Your task to perform on an android device: Add "usb-b" to the cart on ebay Image 0: 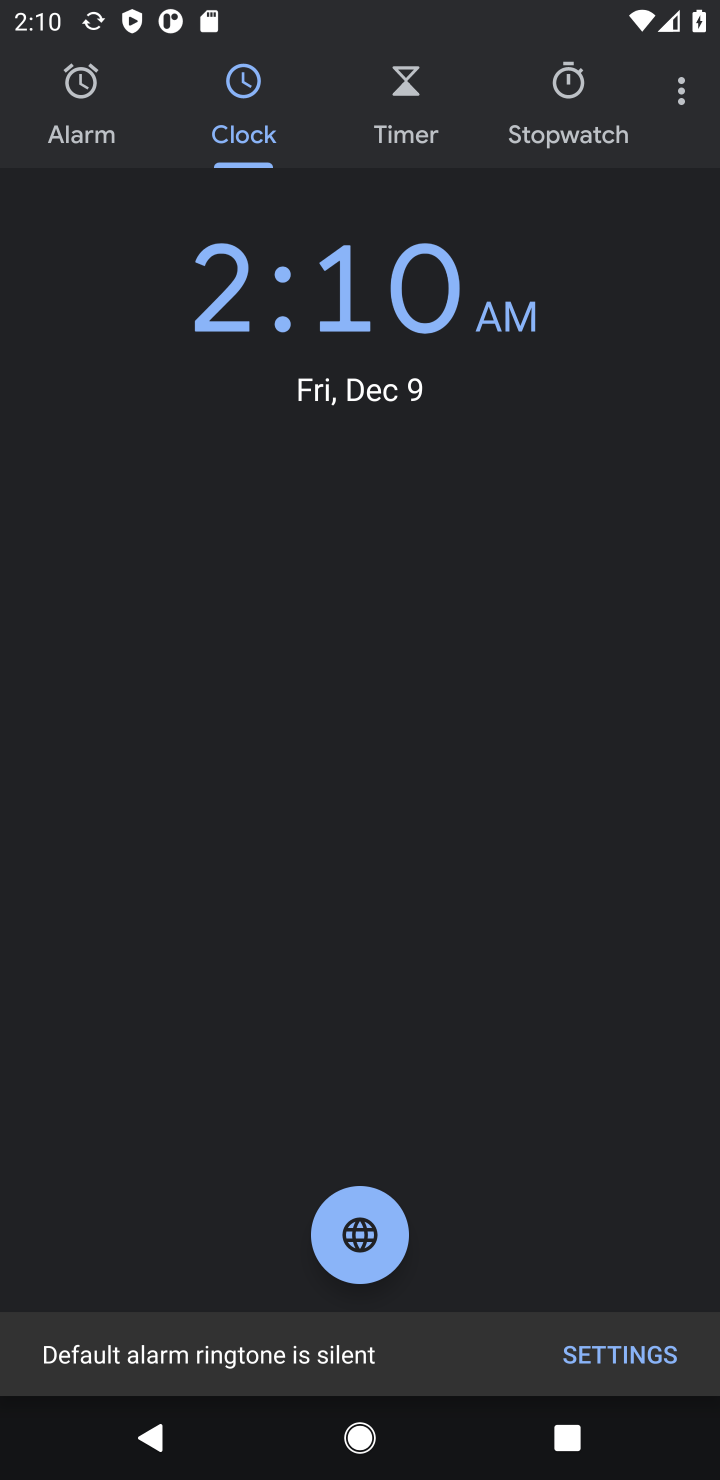
Step 0: press home button
Your task to perform on an android device: Add "usb-b" to the cart on ebay Image 1: 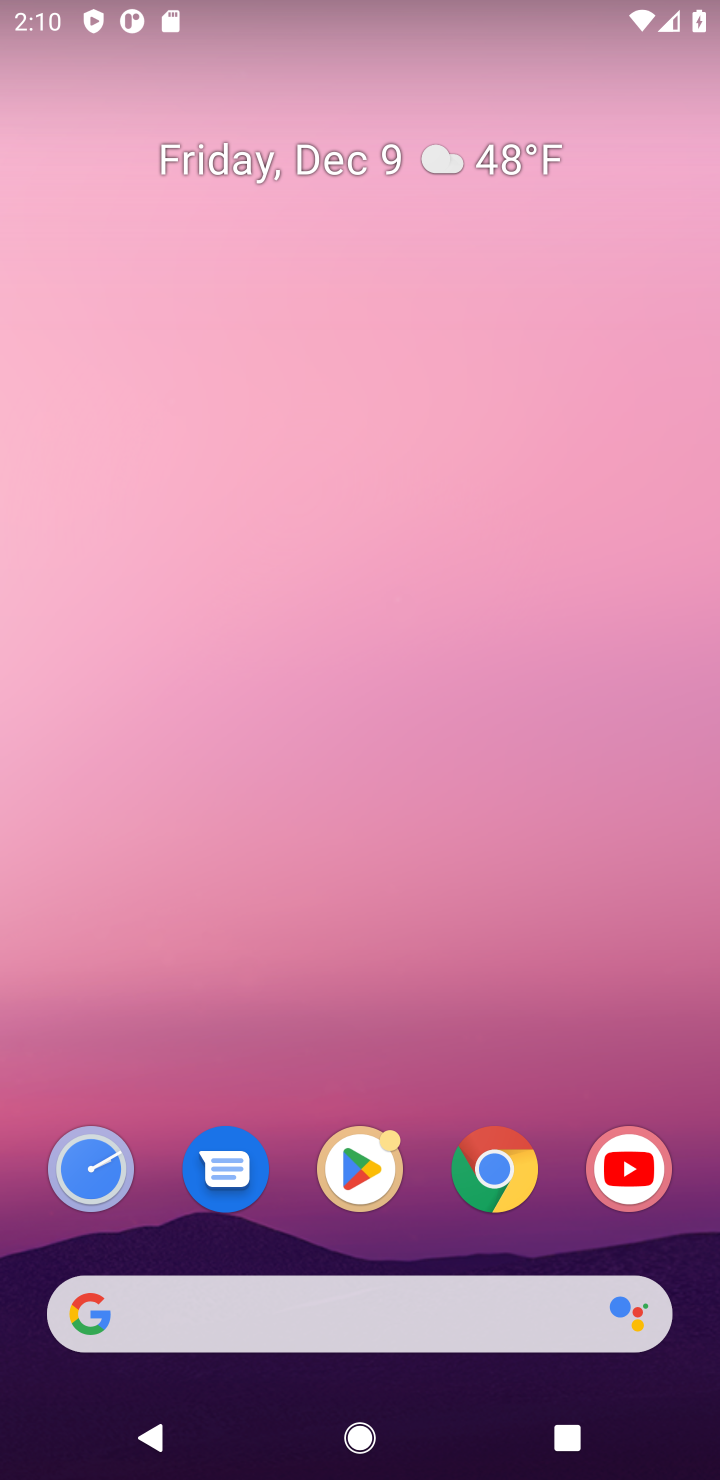
Step 1: click (501, 1157)
Your task to perform on an android device: Add "usb-b" to the cart on ebay Image 2: 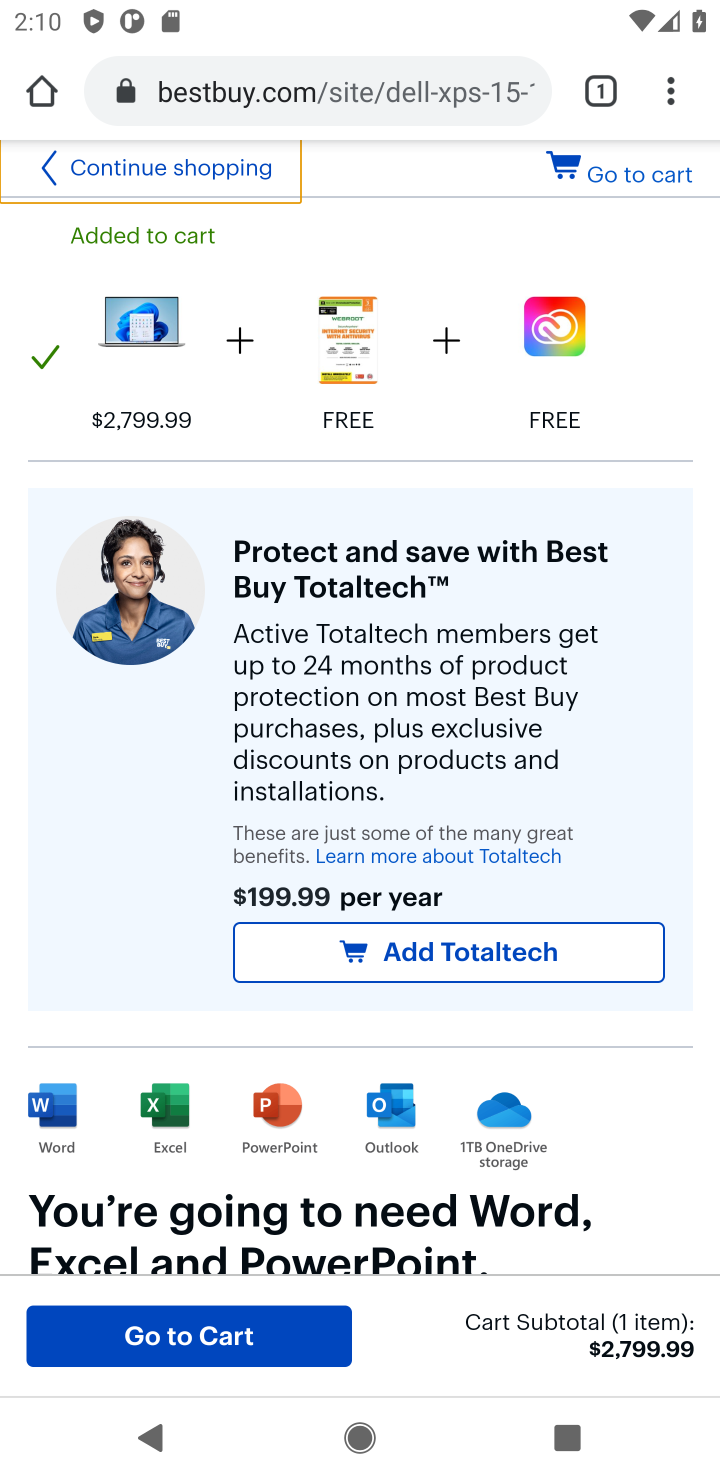
Step 2: click (366, 84)
Your task to perform on an android device: Add "usb-b" to the cart on ebay Image 3: 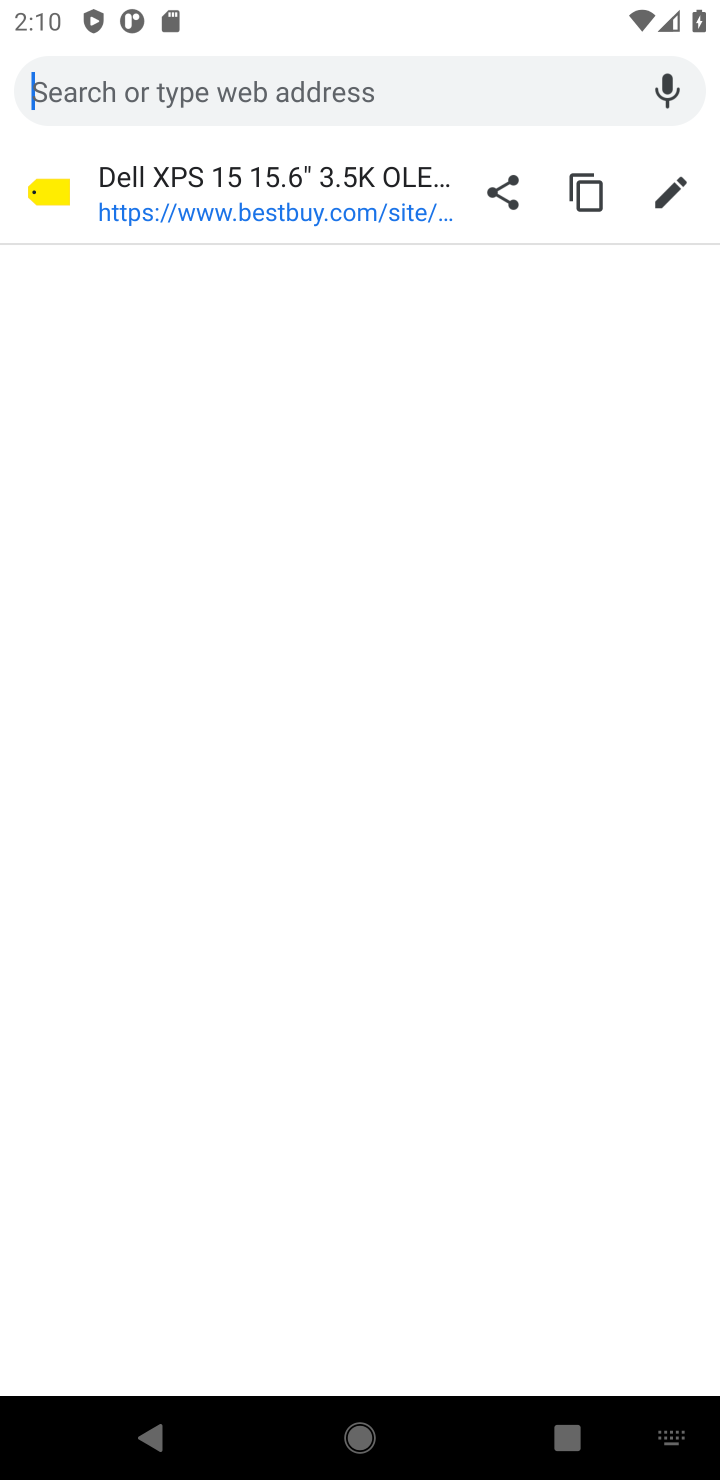
Step 3: press enter
Your task to perform on an android device: Add "usb-b" to the cart on ebay Image 4: 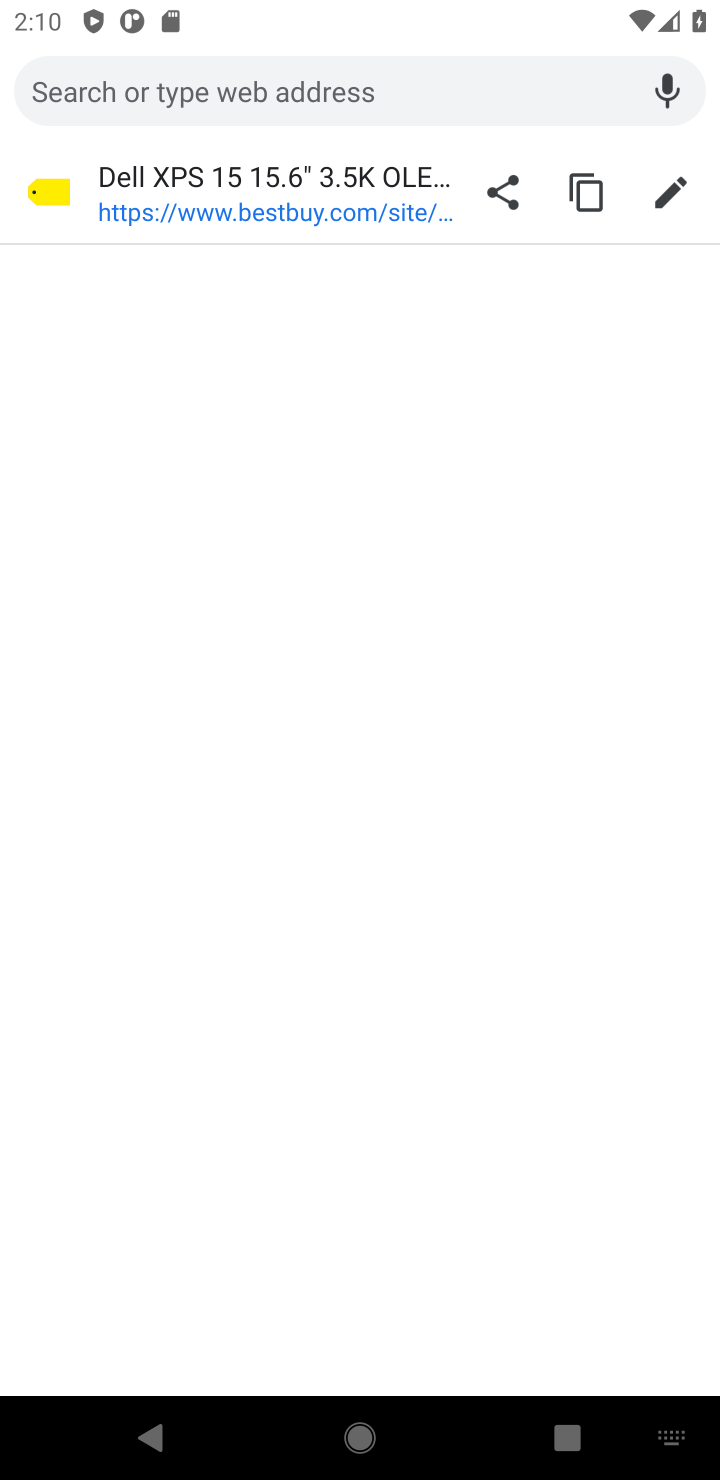
Step 4: type "ebay"
Your task to perform on an android device: Add "usb-b" to the cart on ebay Image 5: 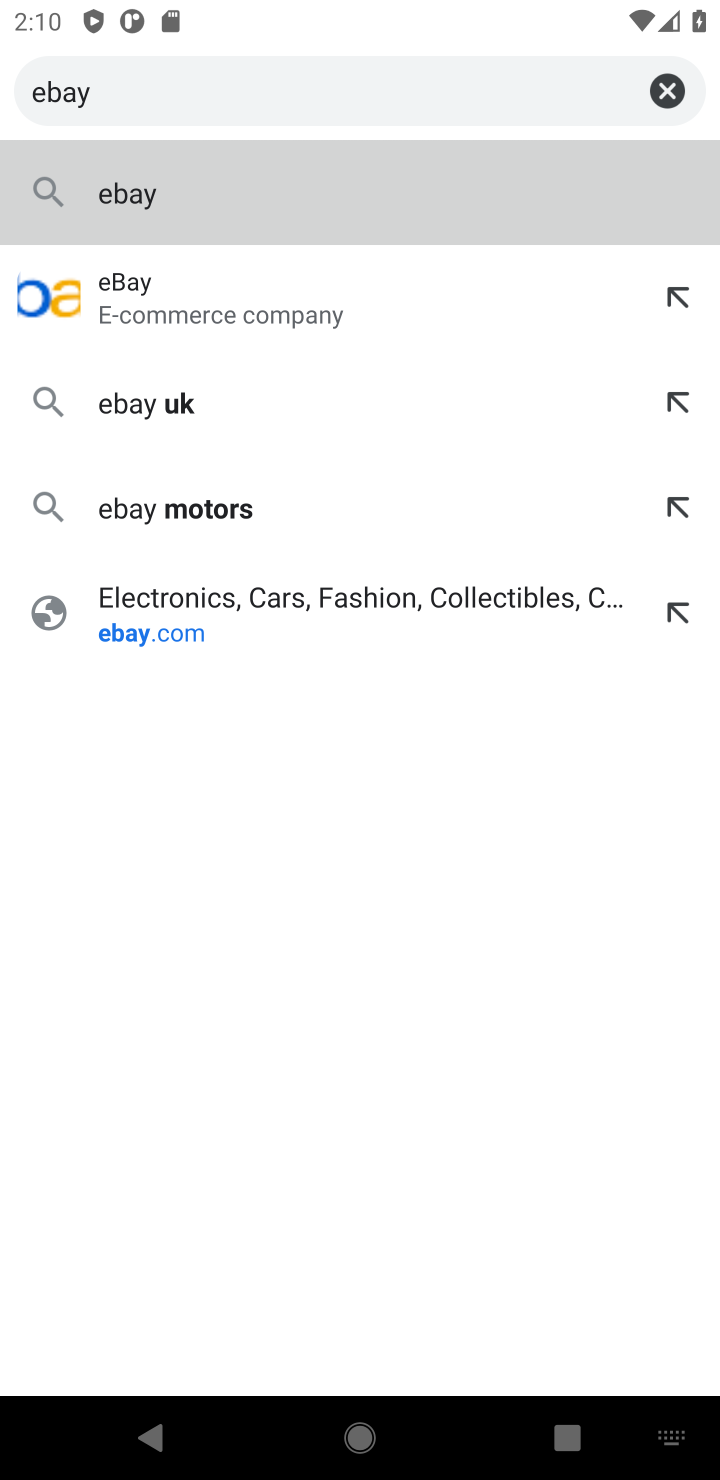
Step 5: click (262, 189)
Your task to perform on an android device: Add "usb-b" to the cart on ebay Image 6: 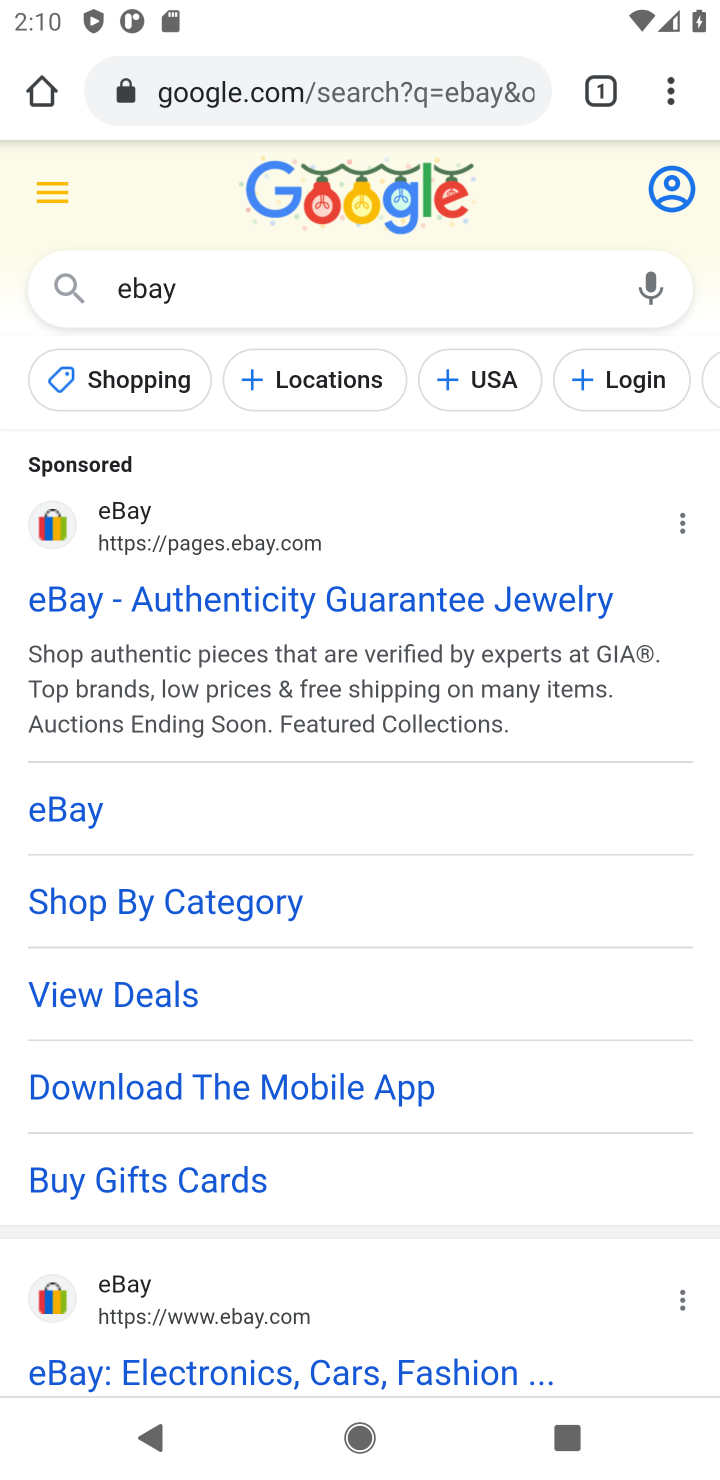
Step 6: click (209, 547)
Your task to perform on an android device: Add "usb-b" to the cart on ebay Image 7: 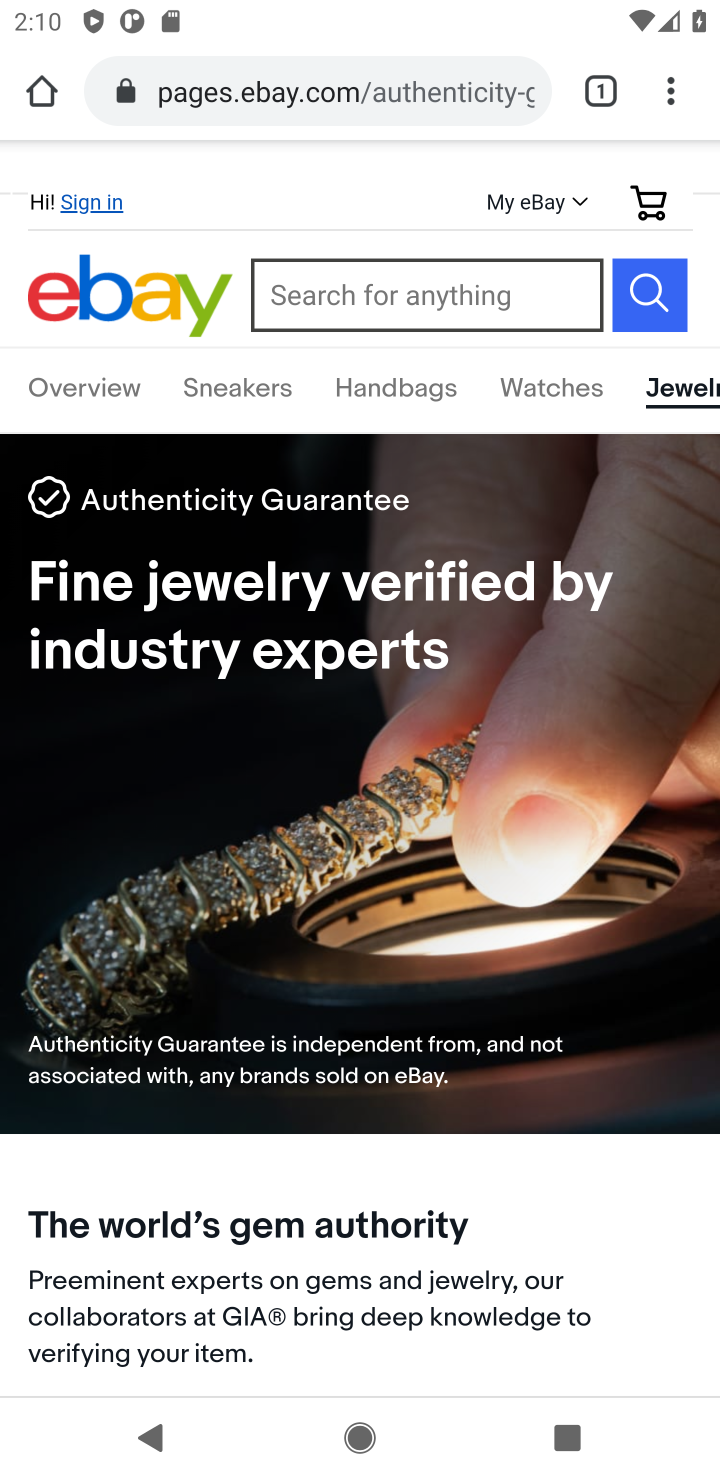
Step 7: click (517, 302)
Your task to perform on an android device: Add "usb-b" to the cart on ebay Image 8: 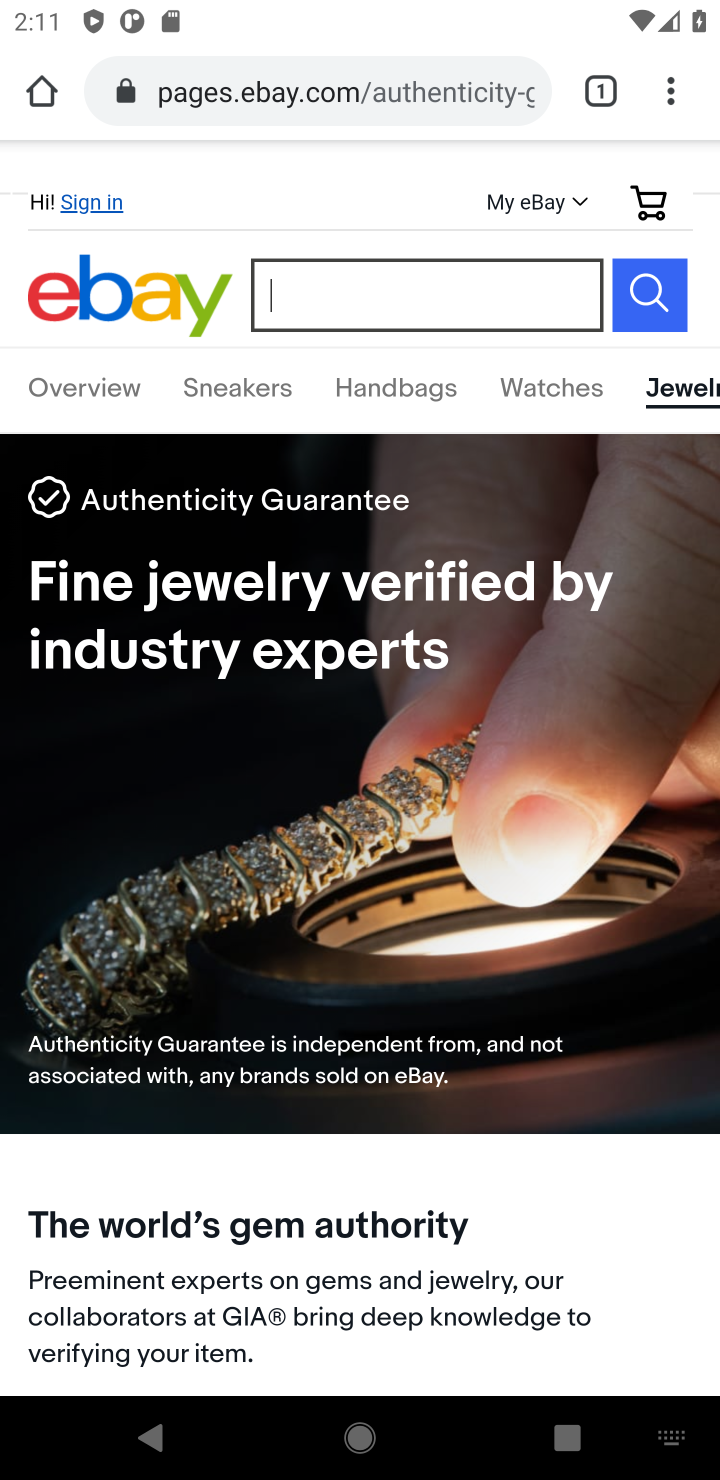
Step 8: press enter
Your task to perform on an android device: Add "usb-b" to the cart on ebay Image 9: 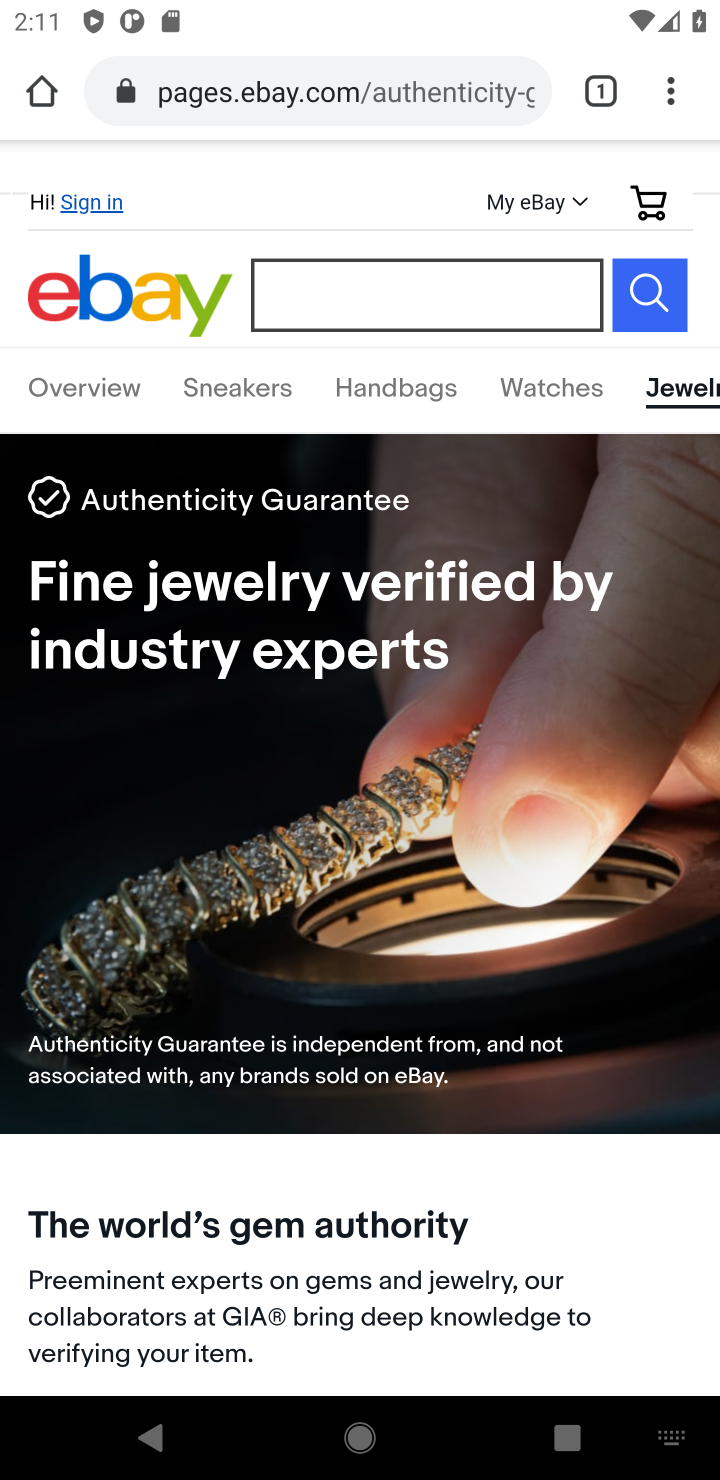
Step 9: type "usb-b"
Your task to perform on an android device: Add "usb-b" to the cart on ebay Image 10: 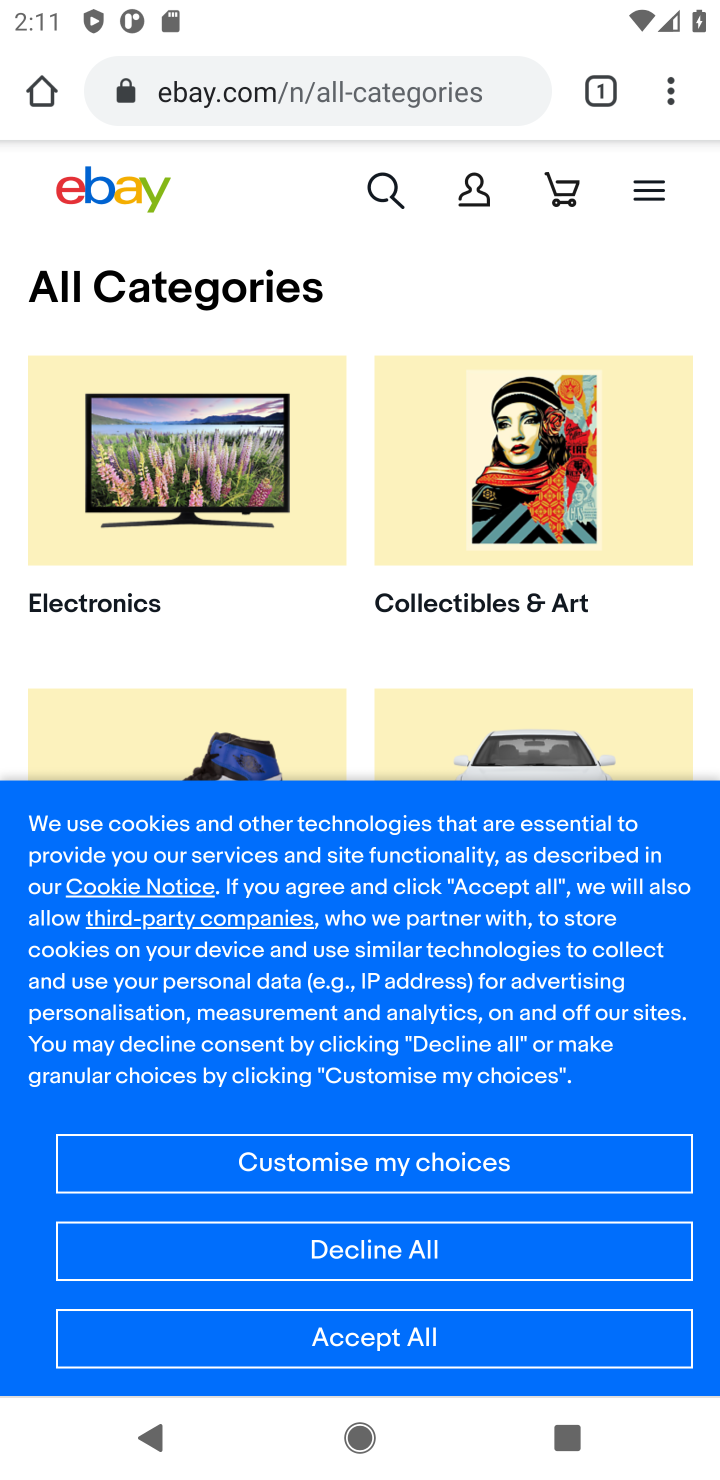
Step 10: click (411, 1330)
Your task to perform on an android device: Add "usb-b" to the cart on ebay Image 11: 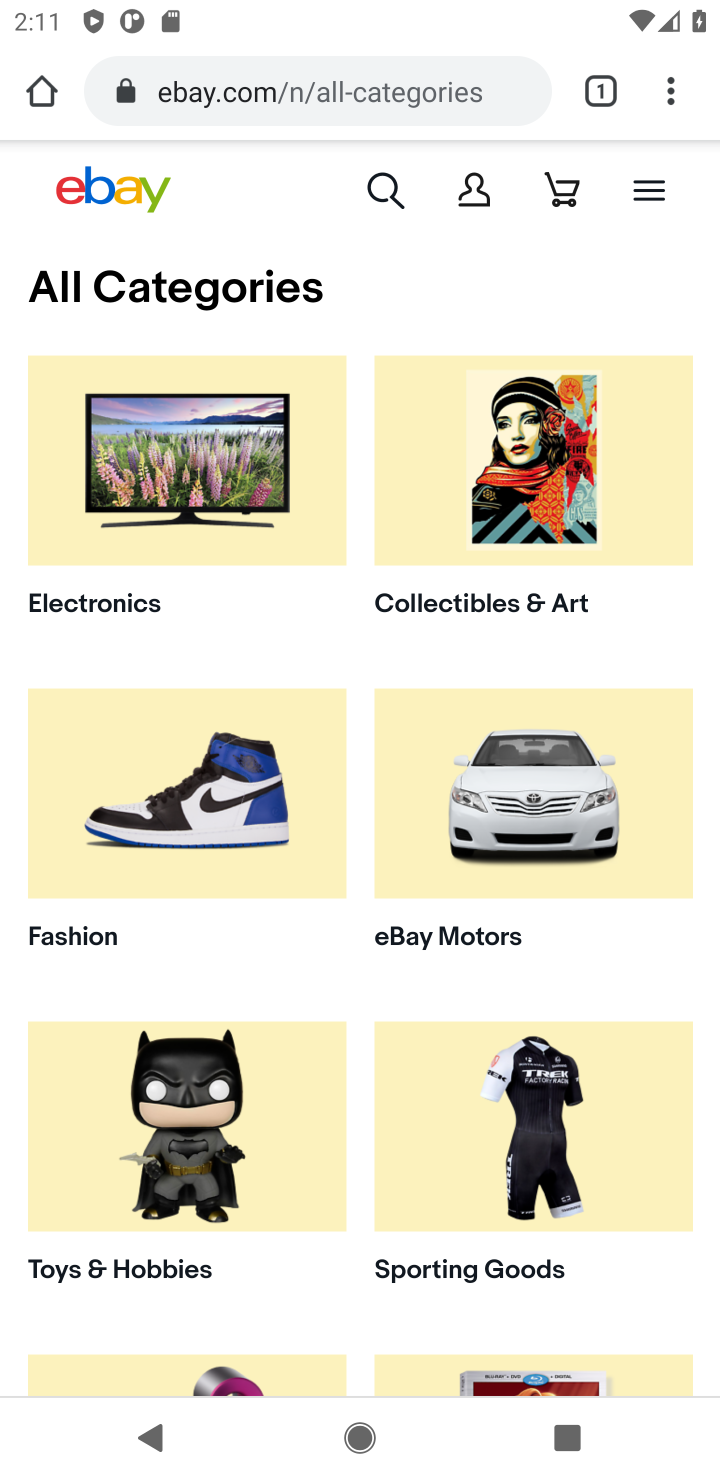
Step 11: click (380, 186)
Your task to perform on an android device: Add "usb-b" to the cart on ebay Image 12: 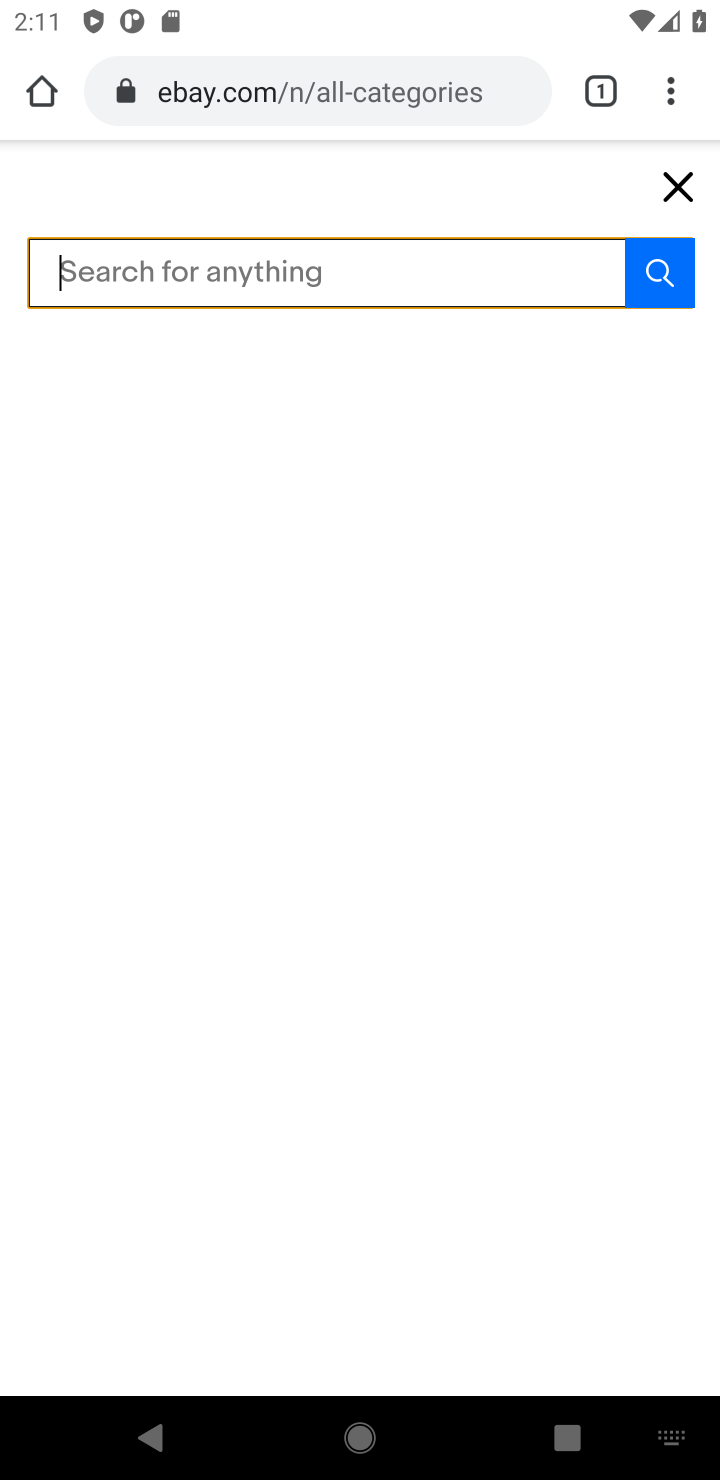
Step 12: press enter
Your task to perform on an android device: Add "usb-b" to the cart on ebay Image 13: 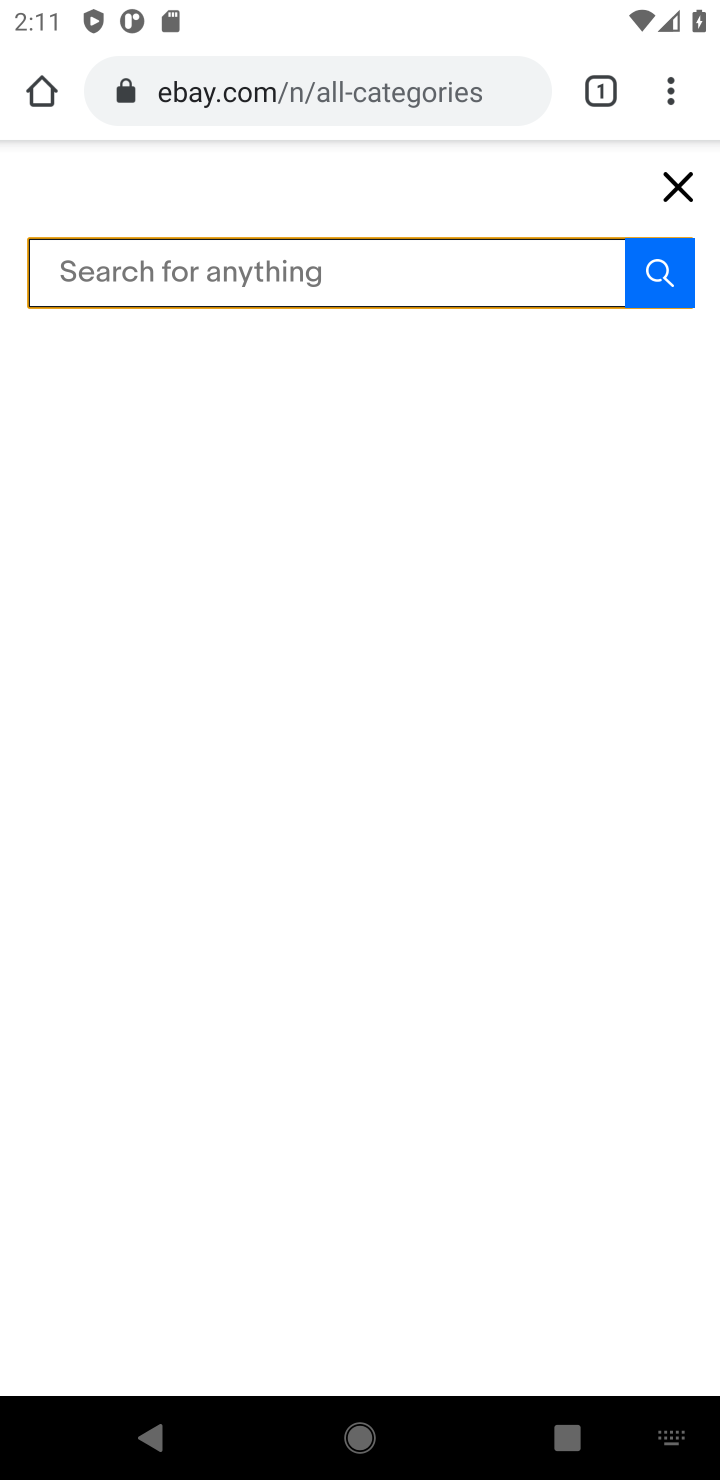
Step 13: type "usb-b"
Your task to perform on an android device: Add "usb-b" to the cart on ebay Image 14: 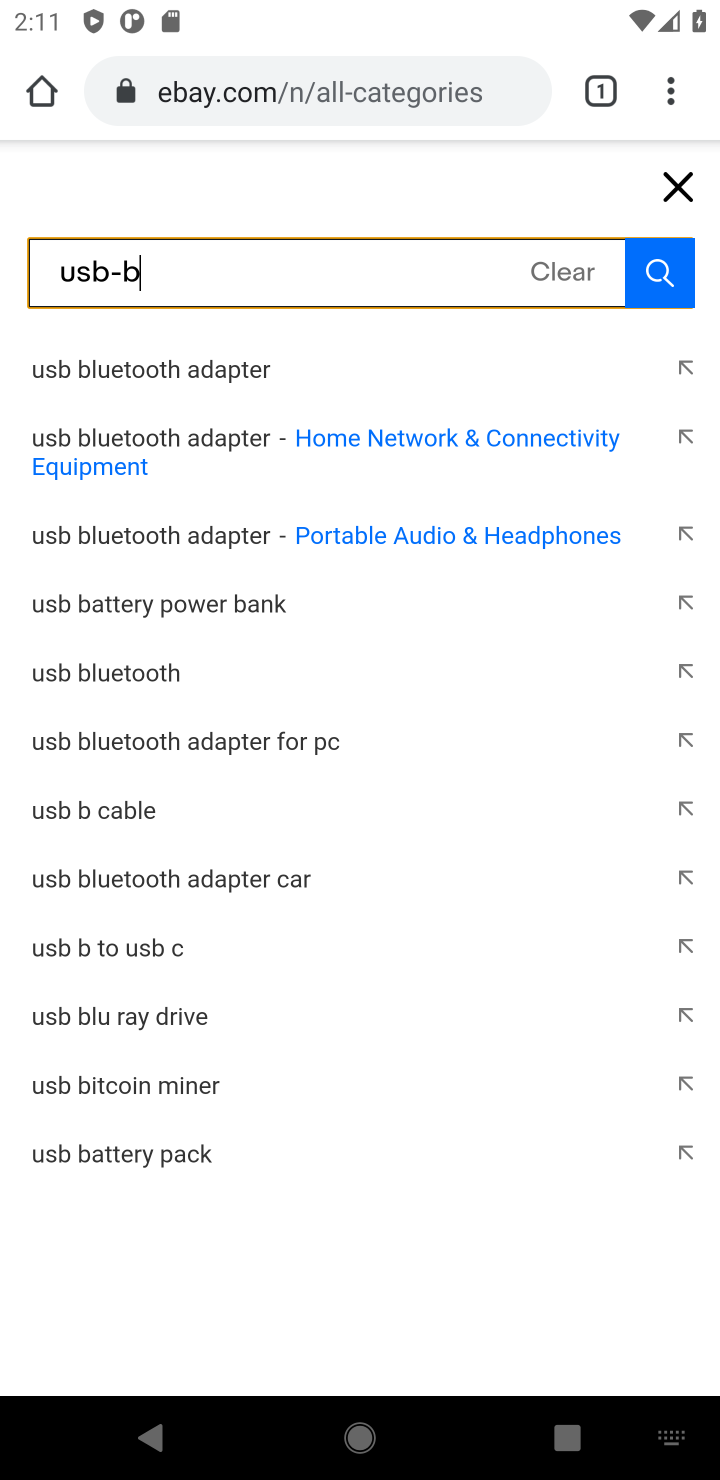
Step 14: click (652, 271)
Your task to perform on an android device: Add "usb-b" to the cart on ebay Image 15: 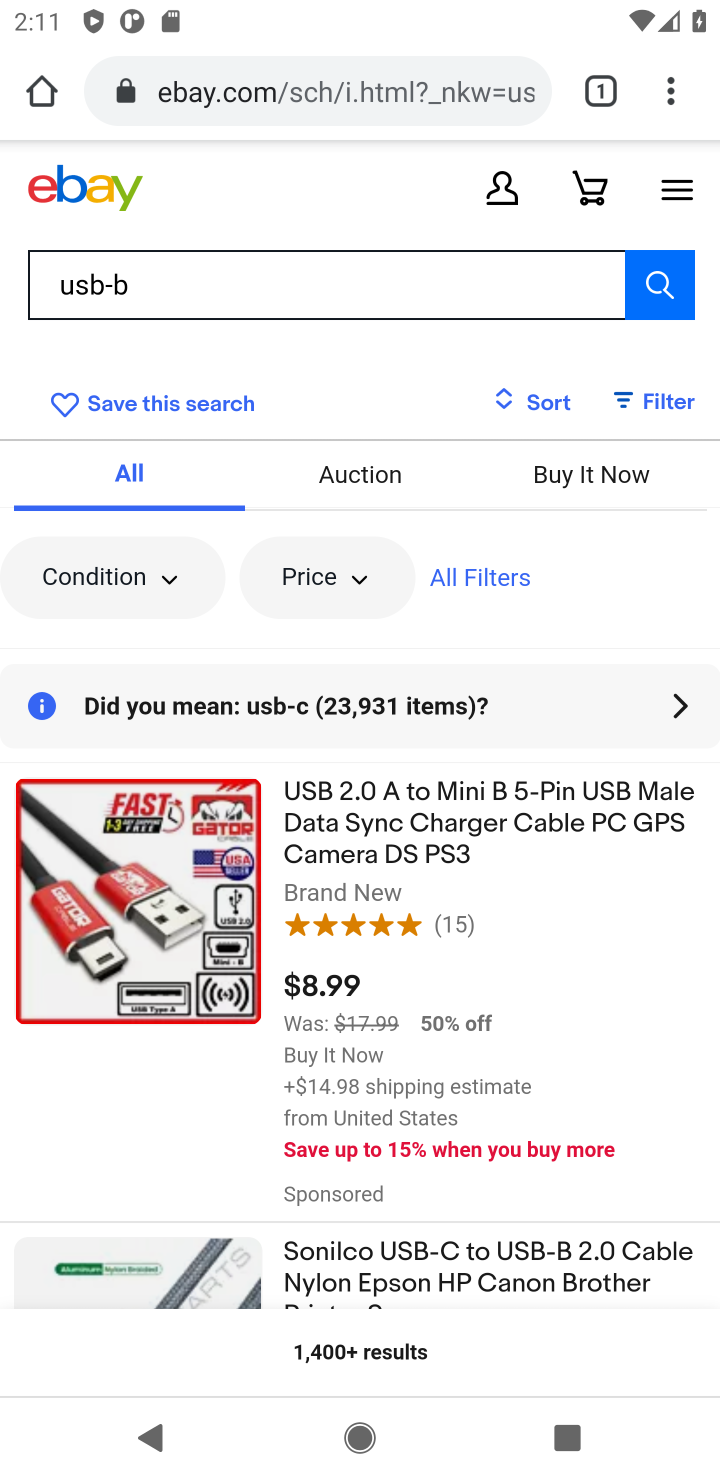
Step 15: drag from (453, 1216) to (540, 734)
Your task to perform on an android device: Add "usb-b" to the cart on ebay Image 16: 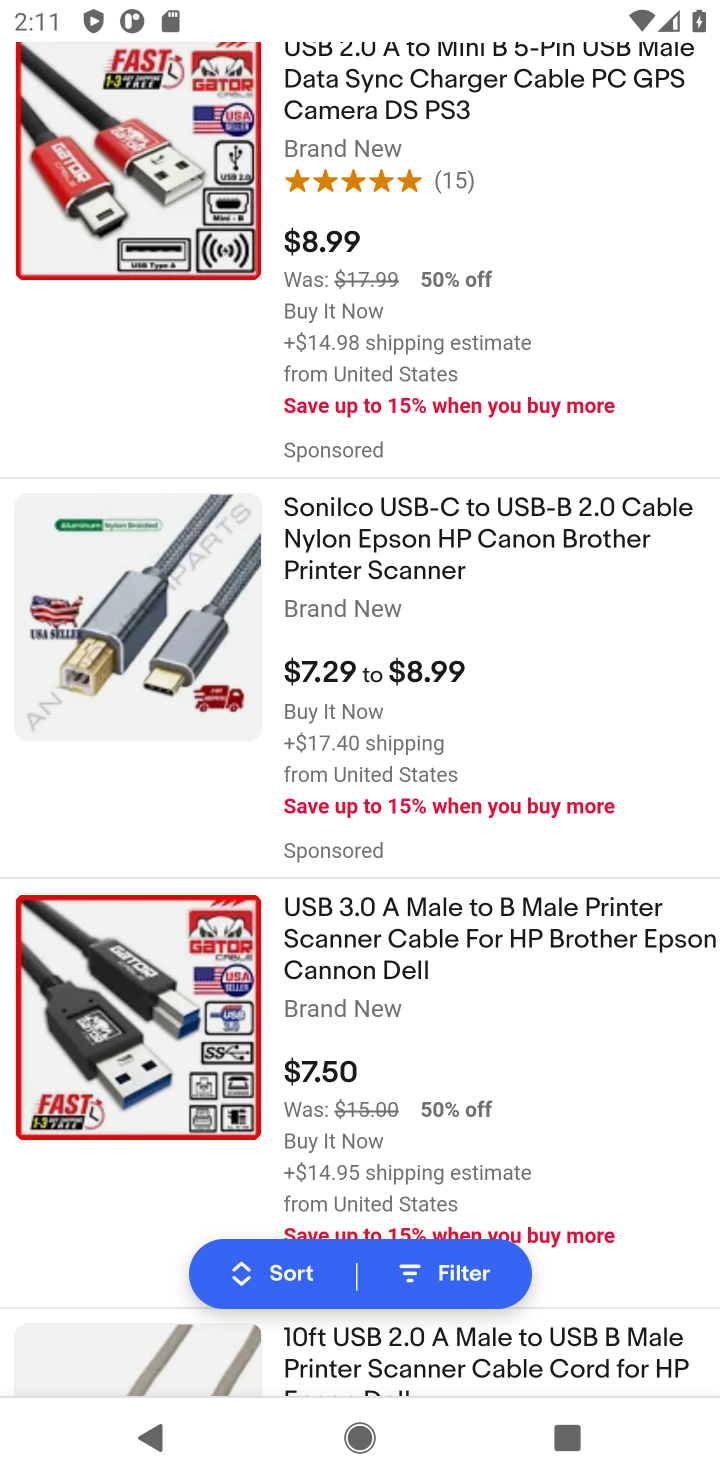
Step 16: click (154, 981)
Your task to perform on an android device: Add "usb-b" to the cart on ebay Image 17: 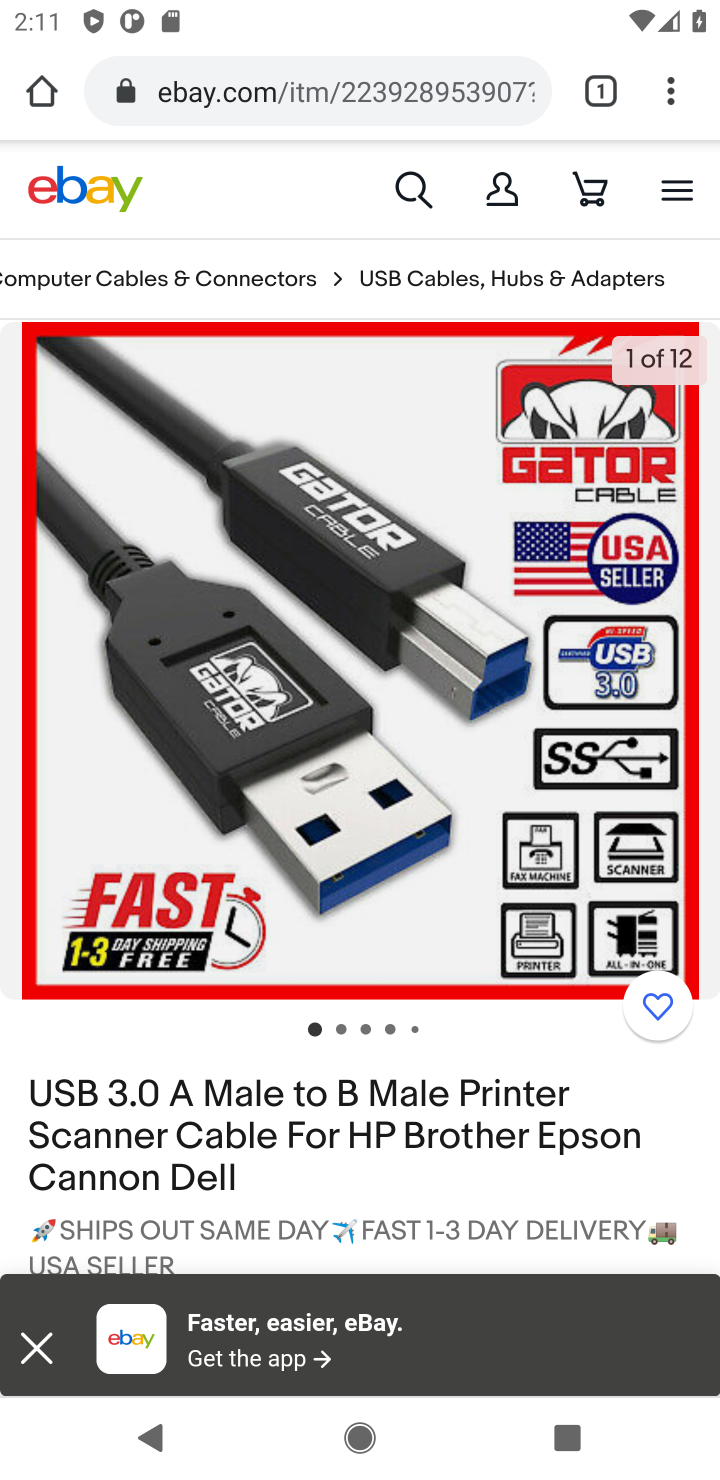
Step 17: drag from (459, 1134) to (479, 350)
Your task to perform on an android device: Add "usb-b" to the cart on ebay Image 18: 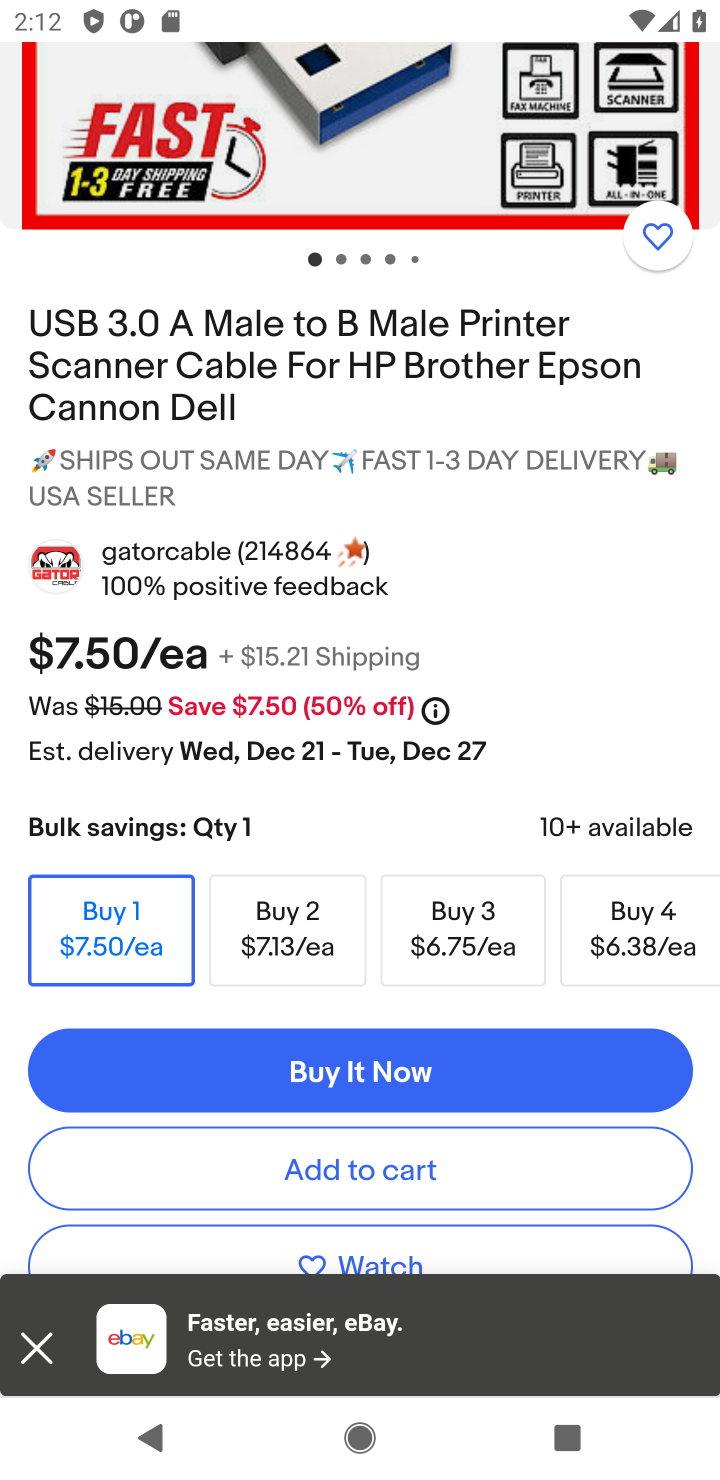
Step 18: click (352, 1172)
Your task to perform on an android device: Add "usb-b" to the cart on ebay Image 19: 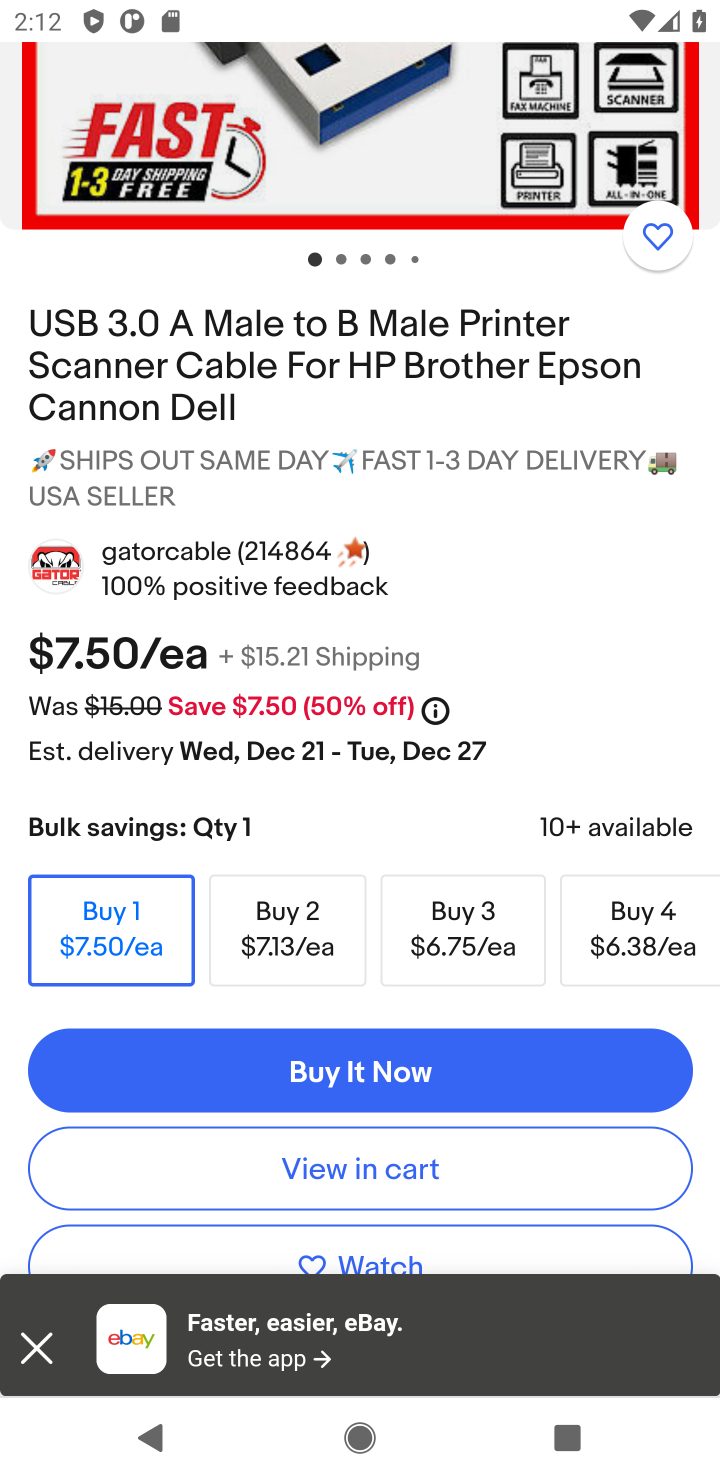
Step 19: click (352, 1172)
Your task to perform on an android device: Add "usb-b" to the cart on ebay Image 20: 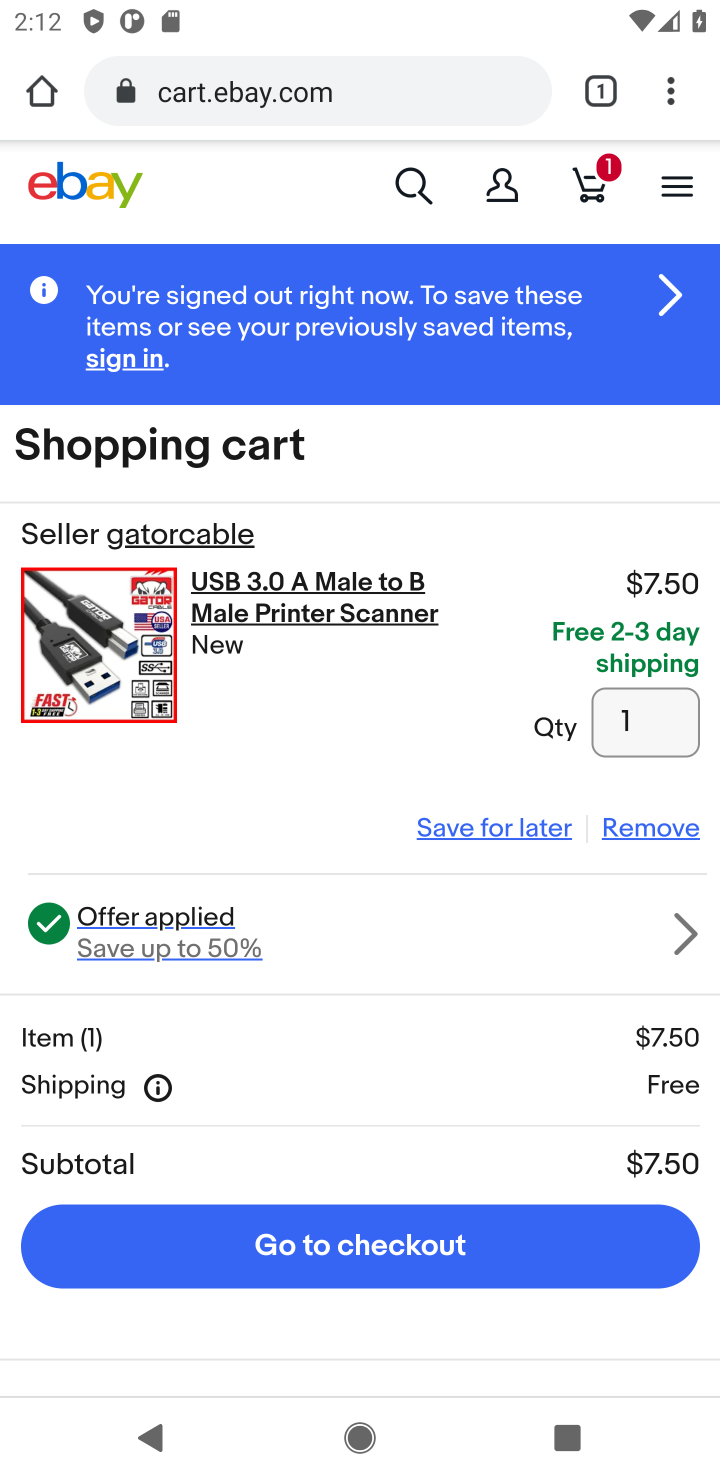
Step 20: task complete